Your task to perform on an android device: change the clock display to analog Image 0: 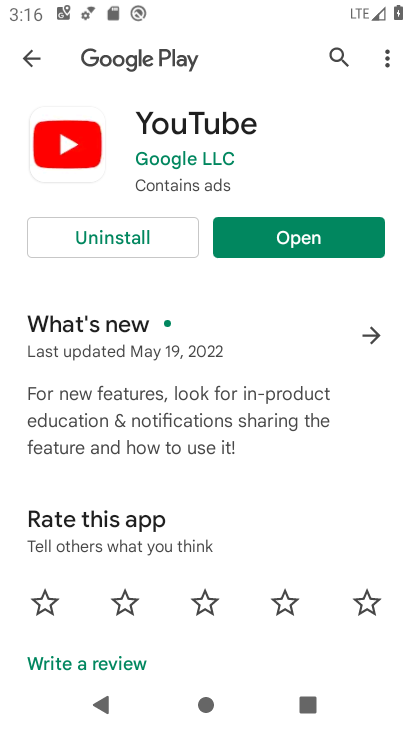
Step 0: press home button
Your task to perform on an android device: change the clock display to analog Image 1: 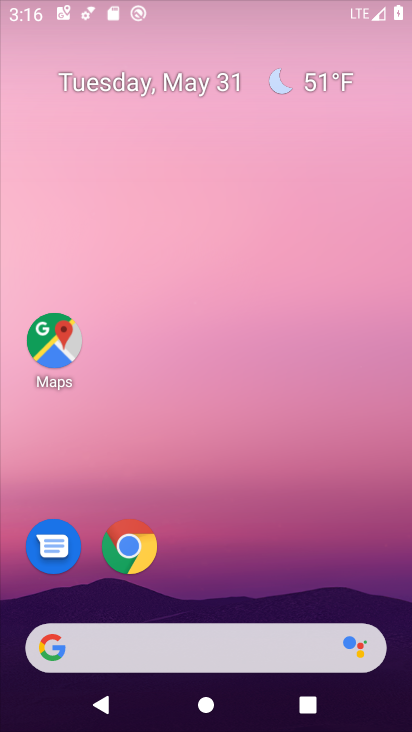
Step 1: drag from (309, 532) to (145, 3)
Your task to perform on an android device: change the clock display to analog Image 2: 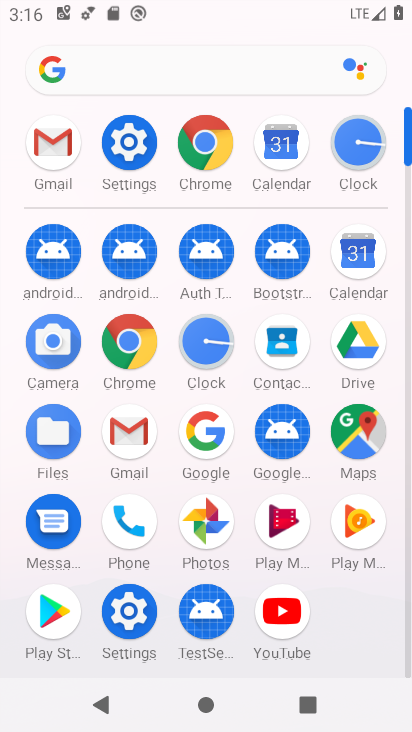
Step 2: click (370, 139)
Your task to perform on an android device: change the clock display to analog Image 3: 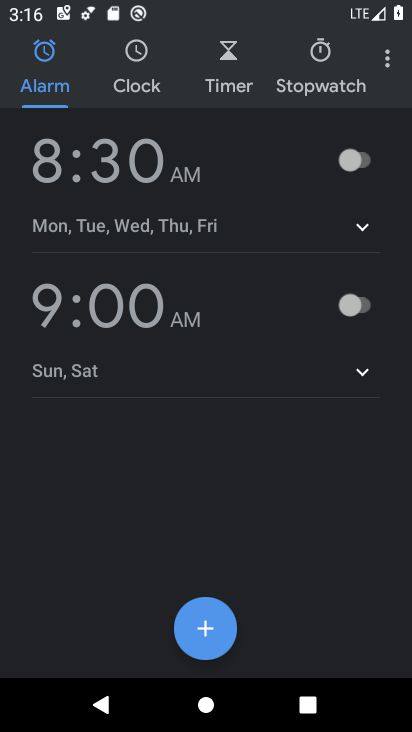
Step 3: click (391, 55)
Your task to perform on an android device: change the clock display to analog Image 4: 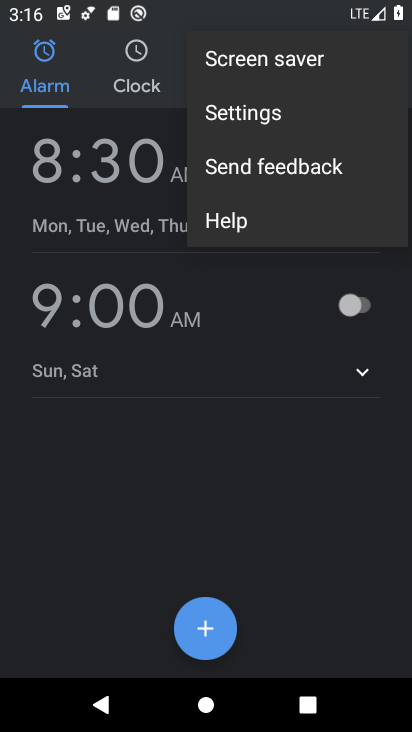
Step 4: click (256, 103)
Your task to perform on an android device: change the clock display to analog Image 5: 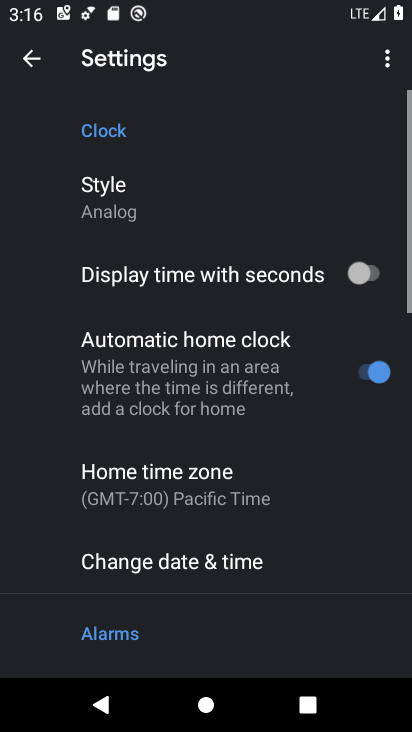
Step 5: click (117, 180)
Your task to perform on an android device: change the clock display to analog Image 6: 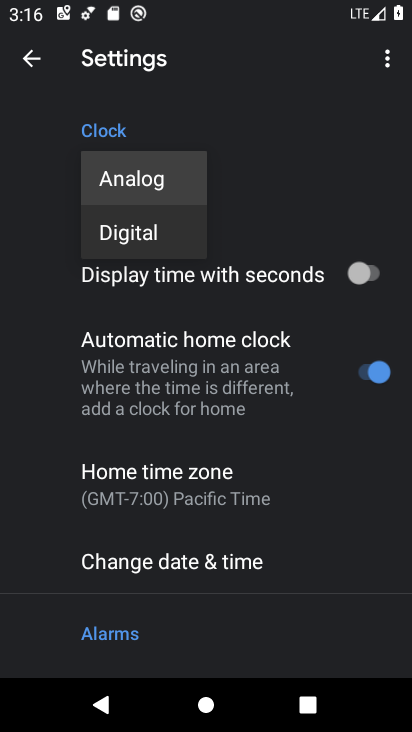
Step 6: task complete